Your task to perform on an android device: Open internet settings Image 0: 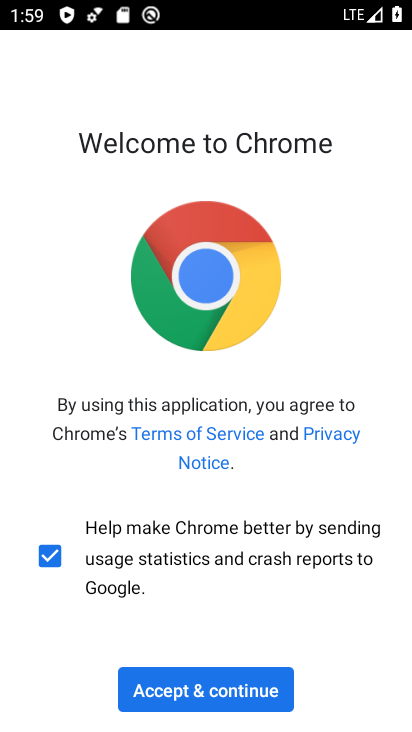
Step 0: press home button
Your task to perform on an android device: Open internet settings Image 1: 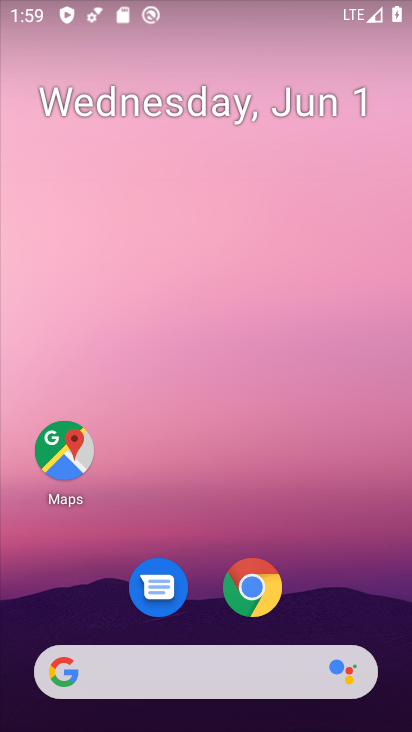
Step 1: drag from (194, 666) to (222, 164)
Your task to perform on an android device: Open internet settings Image 2: 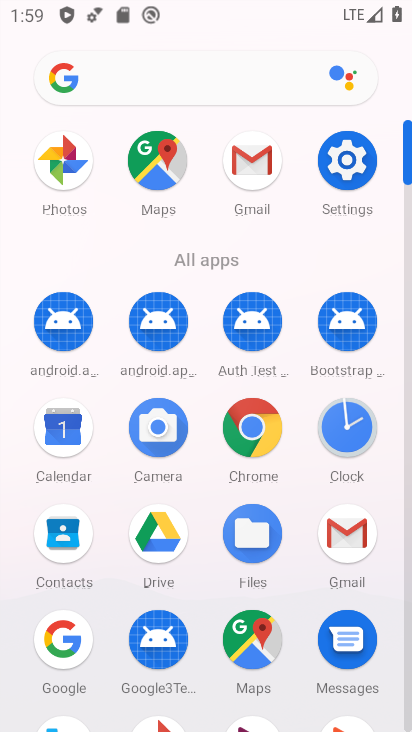
Step 2: click (352, 169)
Your task to perform on an android device: Open internet settings Image 3: 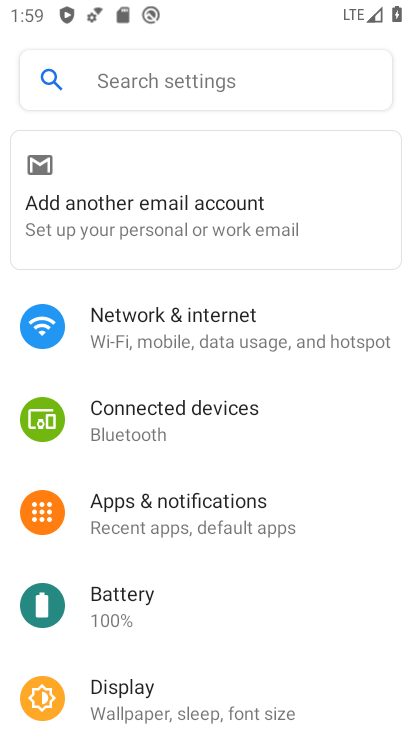
Step 3: click (157, 316)
Your task to perform on an android device: Open internet settings Image 4: 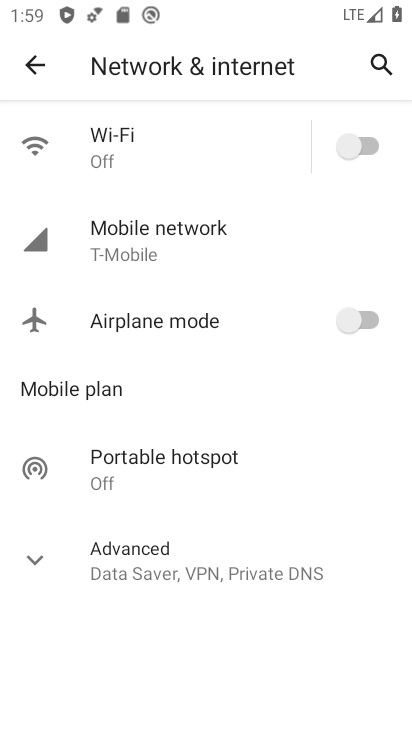
Step 4: task complete